Your task to perform on an android device: Do I have any events this weekend? Image 0: 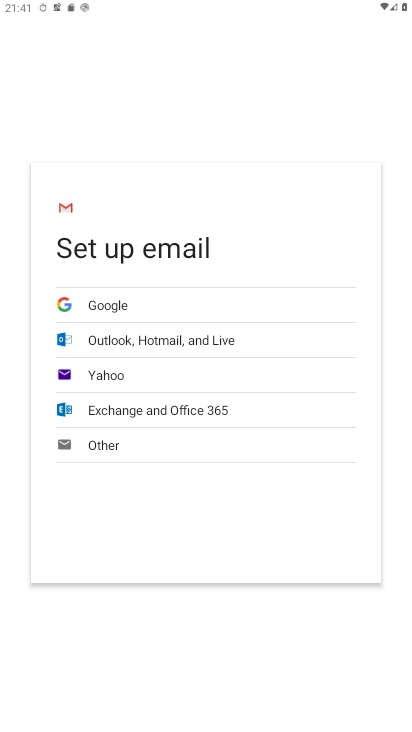
Step 0: press home button
Your task to perform on an android device: Do I have any events this weekend? Image 1: 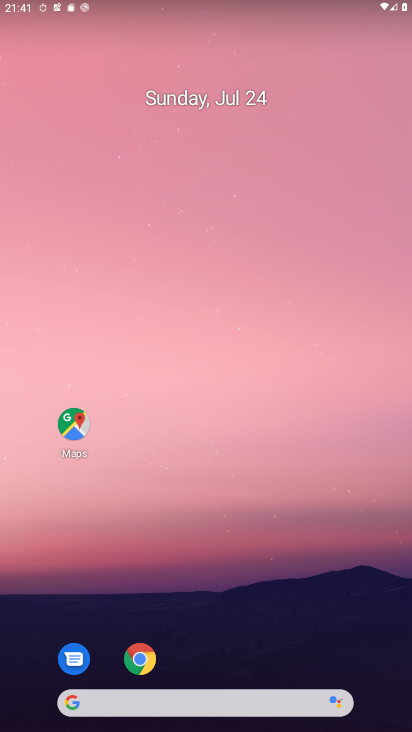
Step 1: drag from (207, 724) to (199, 83)
Your task to perform on an android device: Do I have any events this weekend? Image 2: 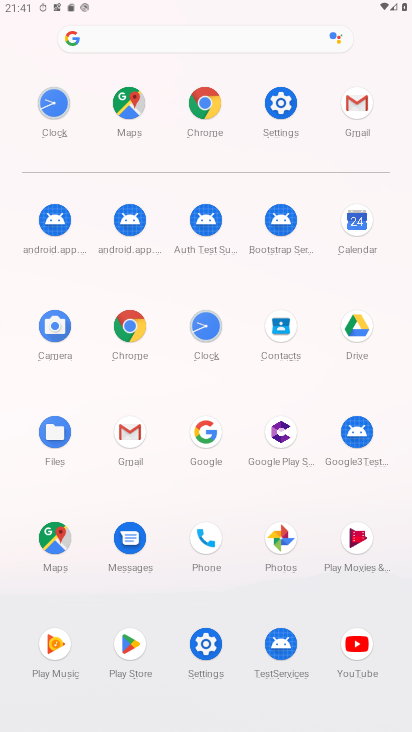
Step 2: click (361, 226)
Your task to perform on an android device: Do I have any events this weekend? Image 3: 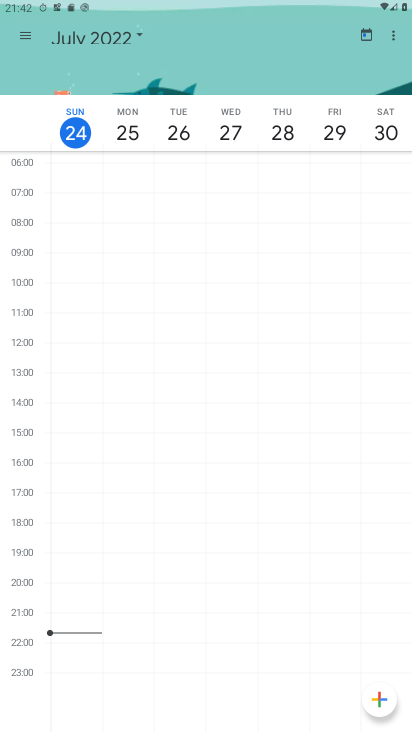
Step 3: click (389, 130)
Your task to perform on an android device: Do I have any events this weekend? Image 4: 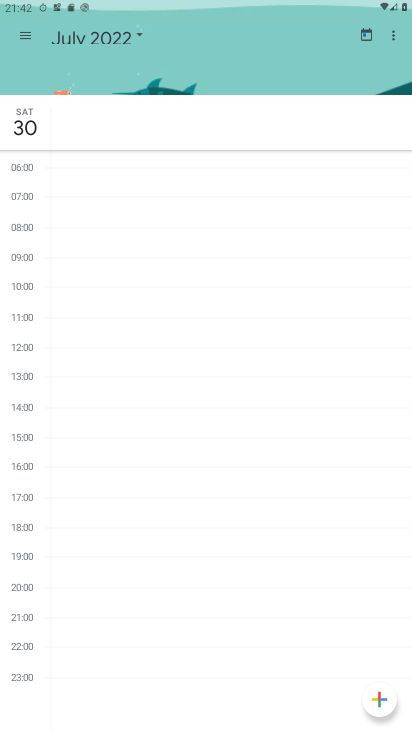
Step 4: task complete